Your task to perform on an android device: Do I have any events tomorrow? Image 0: 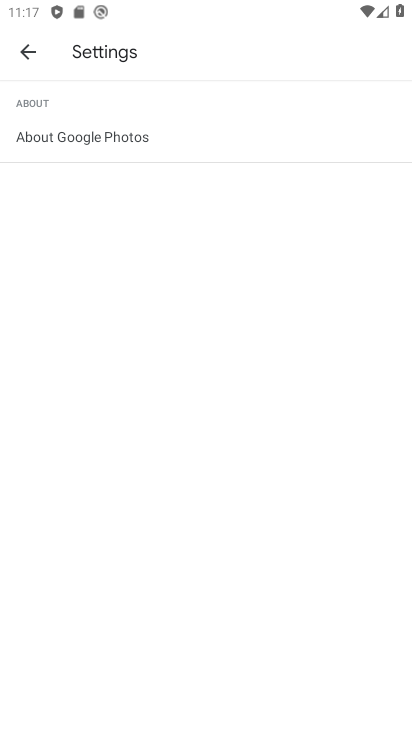
Step 0: press home button
Your task to perform on an android device: Do I have any events tomorrow? Image 1: 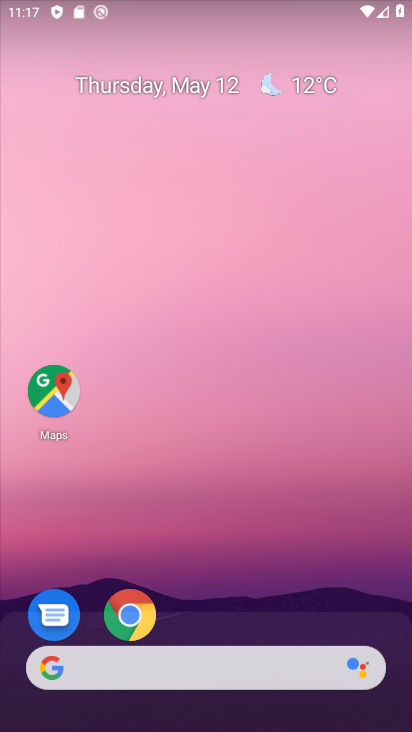
Step 1: drag from (268, 484) to (228, 32)
Your task to perform on an android device: Do I have any events tomorrow? Image 2: 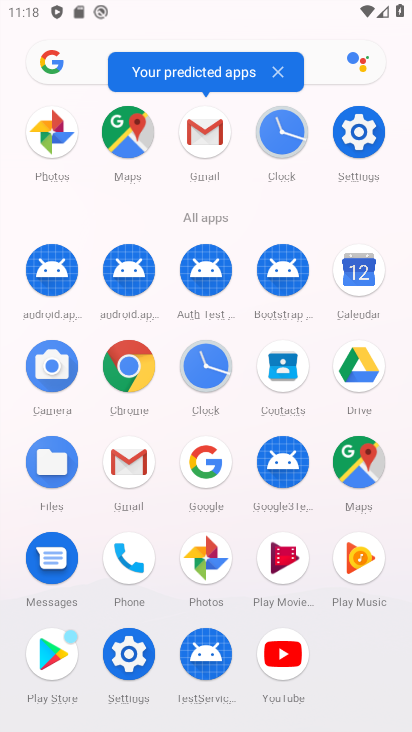
Step 2: click (353, 268)
Your task to perform on an android device: Do I have any events tomorrow? Image 3: 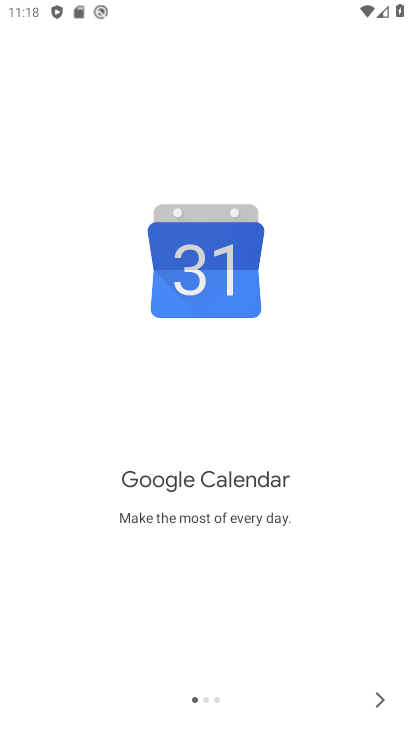
Step 3: click (376, 701)
Your task to perform on an android device: Do I have any events tomorrow? Image 4: 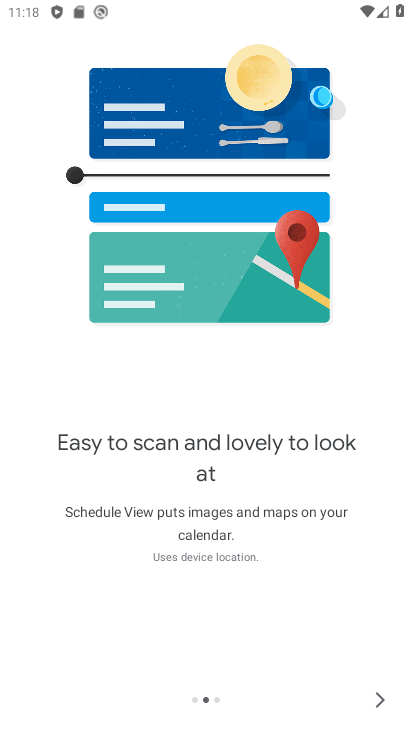
Step 4: click (379, 695)
Your task to perform on an android device: Do I have any events tomorrow? Image 5: 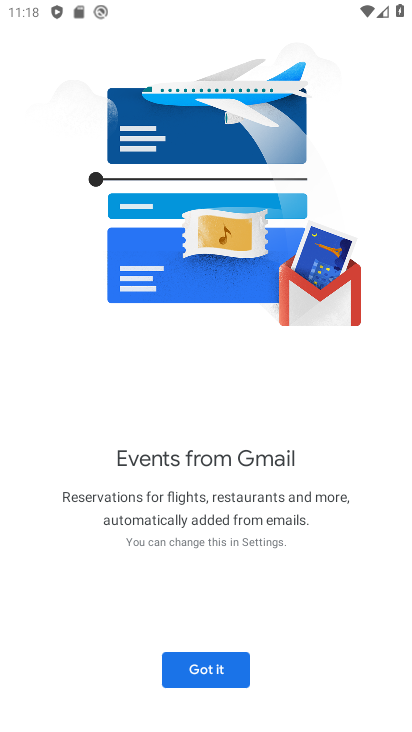
Step 5: click (235, 669)
Your task to perform on an android device: Do I have any events tomorrow? Image 6: 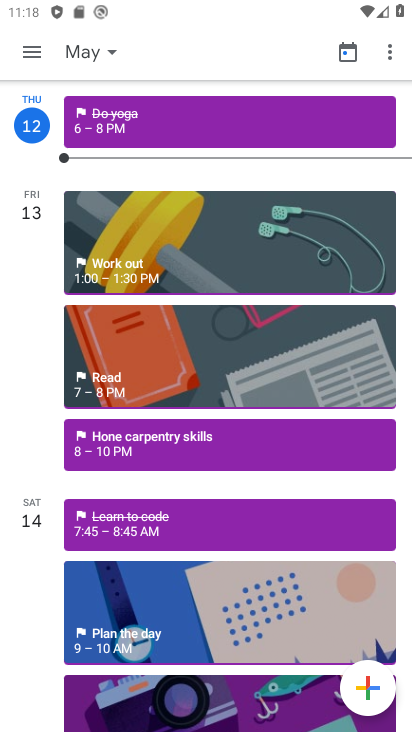
Step 6: task complete